Your task to perform on an android device: allow notifications from all sites in the chrome app Image 0: 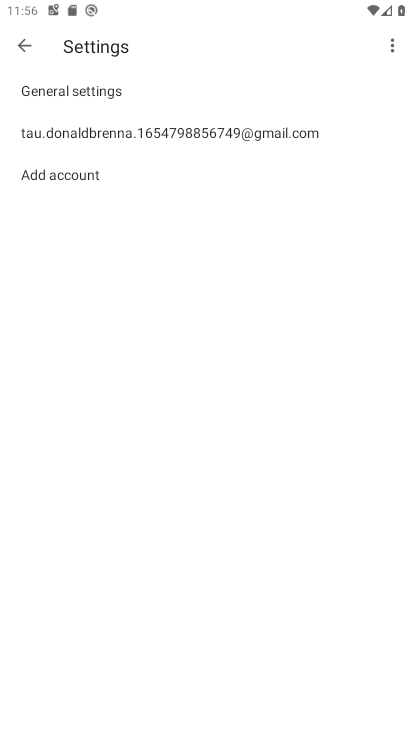
Step 0: click (210, 128)
Your task to perform on an android device: allow notifications from all sites in the chrome app Image 1: 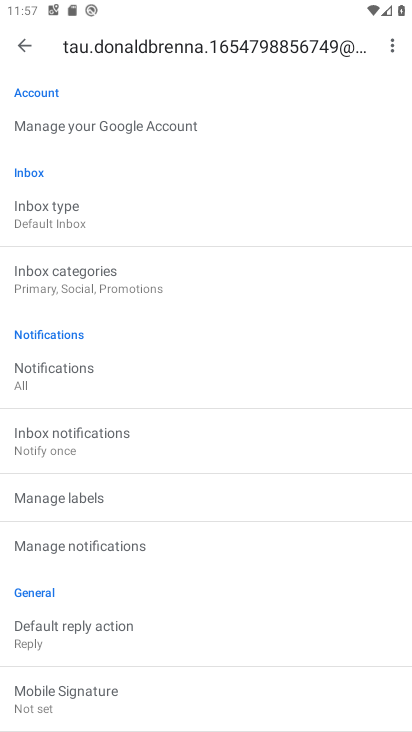
Step 1: click (61, 549)
Your task to perform on an android device: allow notifications from all sites in the chrome app Image 2: 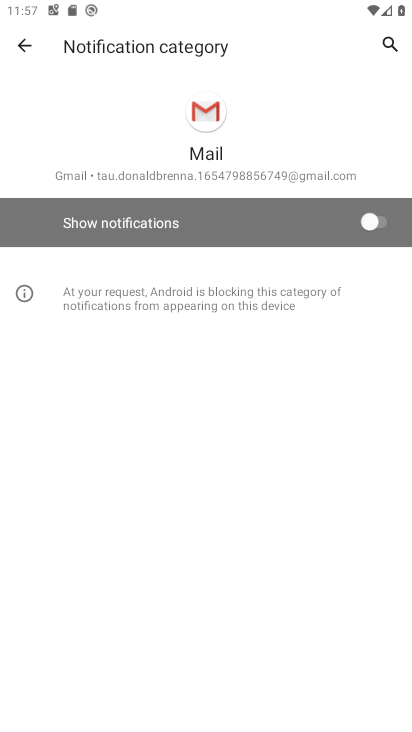
Step 2: click (379, 218)
Your task to perform on an android device: allow notifications from all sites in the chrome app Image 3: 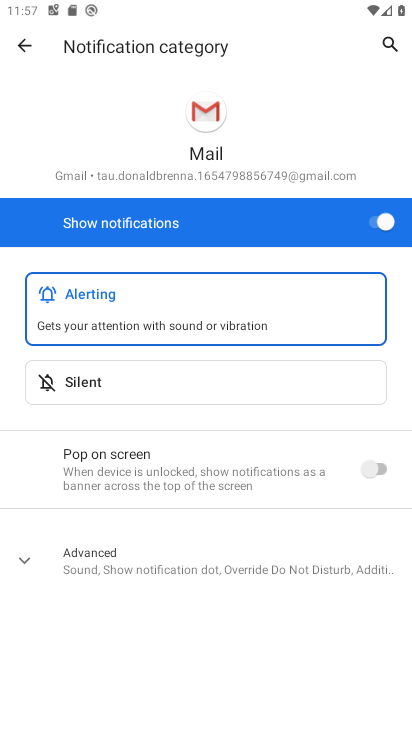
Step 3: task complete